Your task to perform on an android device: open sync settings in chrome Image 0: 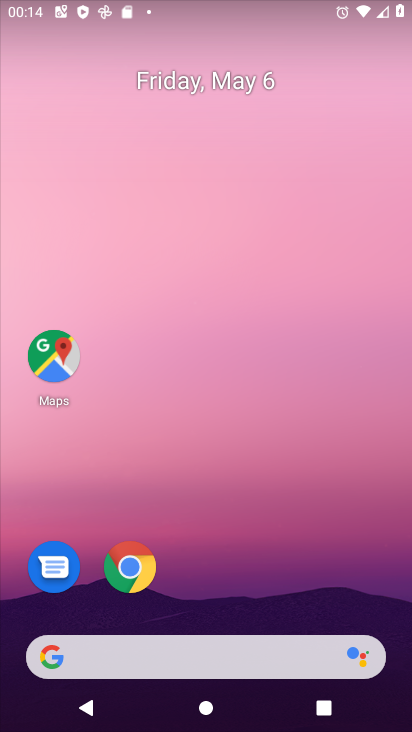
Step 0: click (111, 558)
Your task to perform on an android device: open sync settings in chrome Image 1: 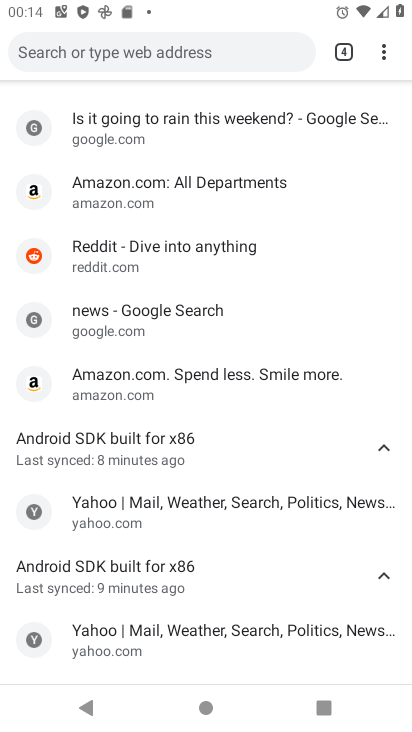
Step 1: click (379, 47)
Your task to perform on an android device: open sync settings in chrome Image 2: 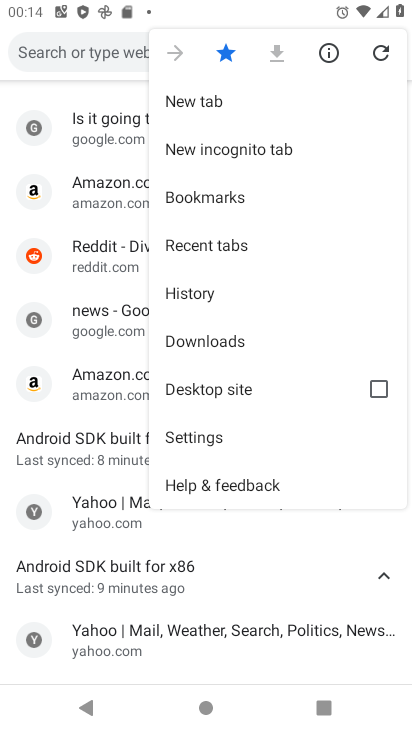
Step 2: click (186, 429)
Your task to perform on an android device: open sync settings in chrome Image 3: 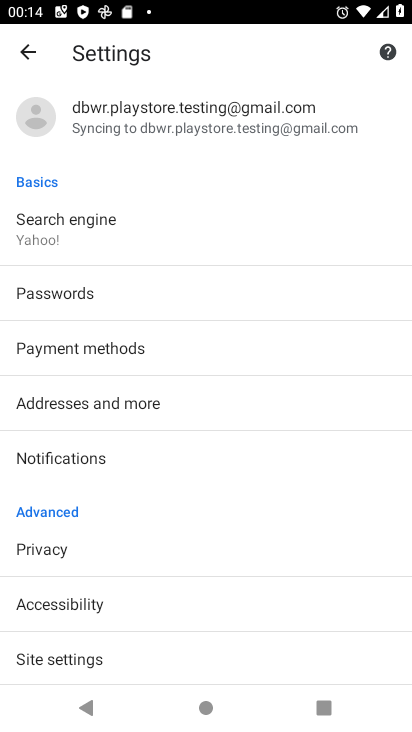
Step 3: click (174, 109)
Your task to perform on an android device: open sync settings in chrome Image 4: 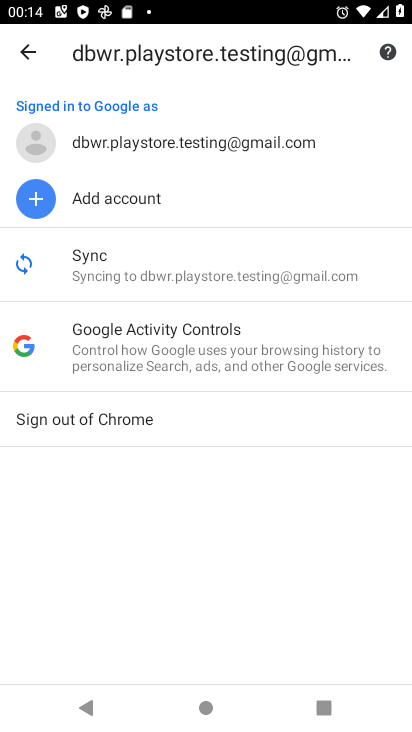
Step 4: click (141, 250)
Your task to perform on an android device: open sync settings in chrome Image 5: 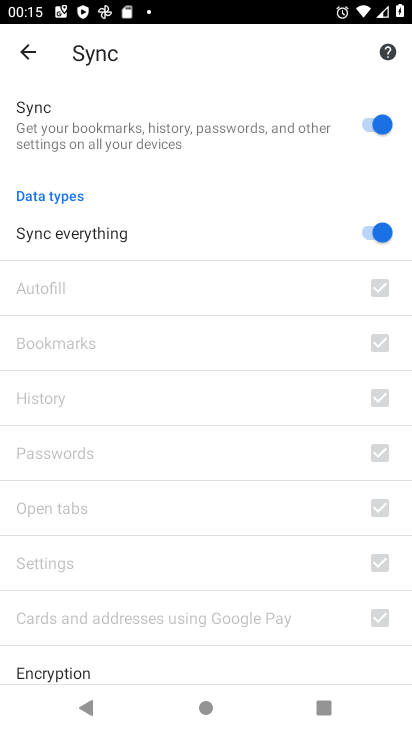
Step 5: task complete